Your task to perform on an android device: Open battery settings Image 0: 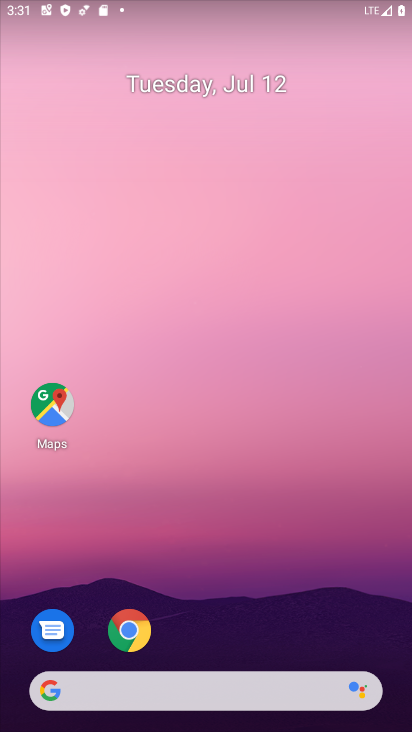
Step 0: drag from (343, 690) to (350, 104)
Your task to perform on an android device: Open battery settings Image 1: 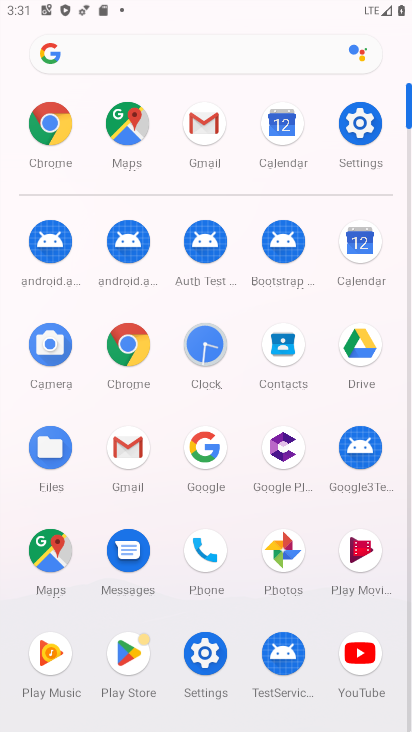
Step 1: click (360, 124)
Your task to perform on an android device: Open battery settings Image 2: 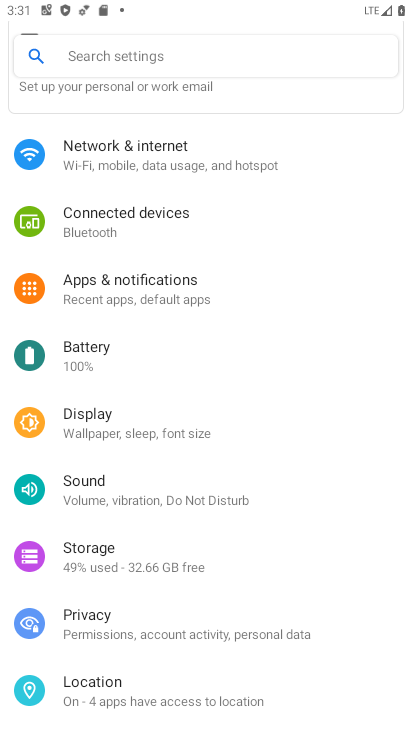
Step 2: click (167, 345)
Your task to perform on an android device: Open battery settings Image 3: 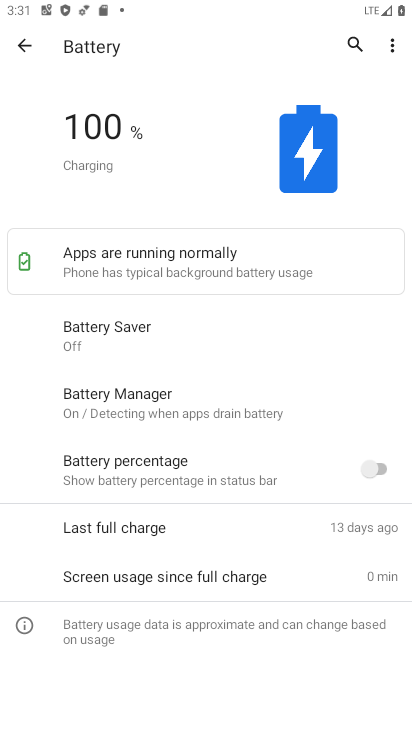
Step 3: task complete